Your task to perform on an android device: Go to calendar. Show me events next week Image 0: 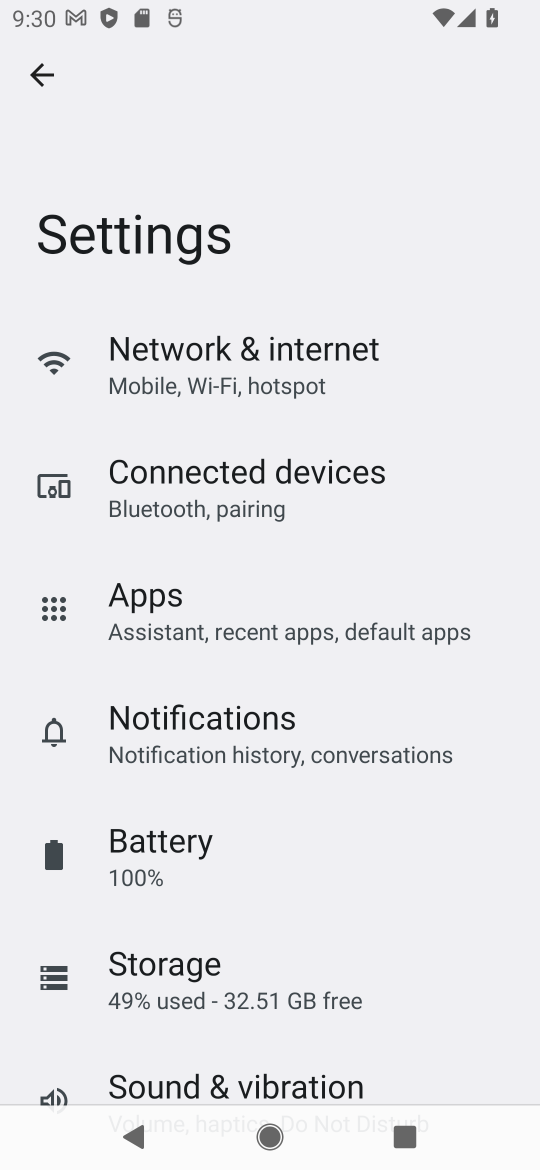
Step 0: press home button
Your task to perform on an android device: Go to calendar. Show me events next week Image 1: 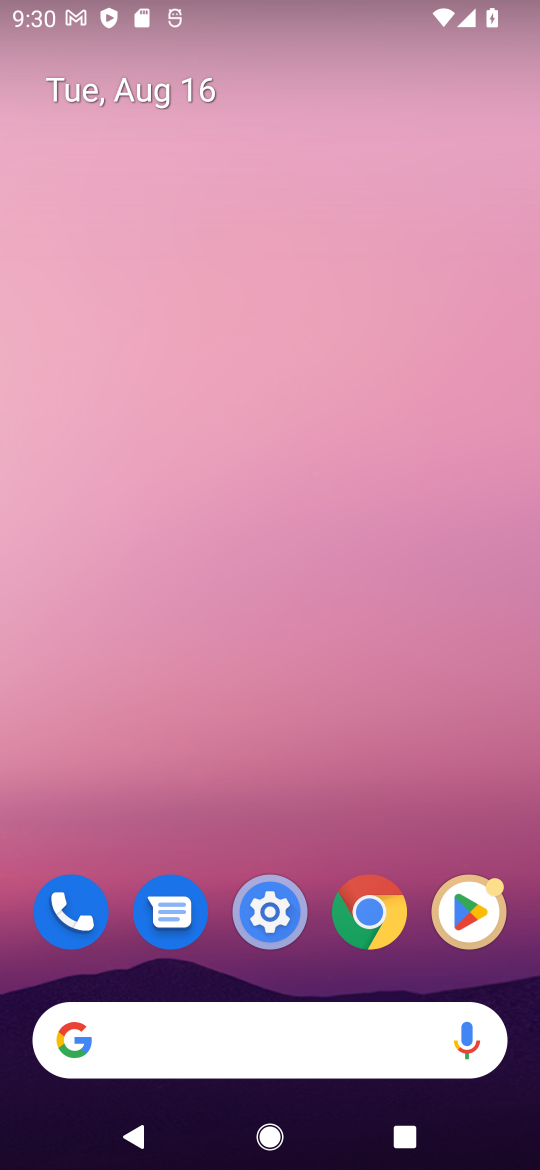
Step 1: click (144, 92)
Your task to perform on an android device: Go to calendar. Show me events next week Image 2: 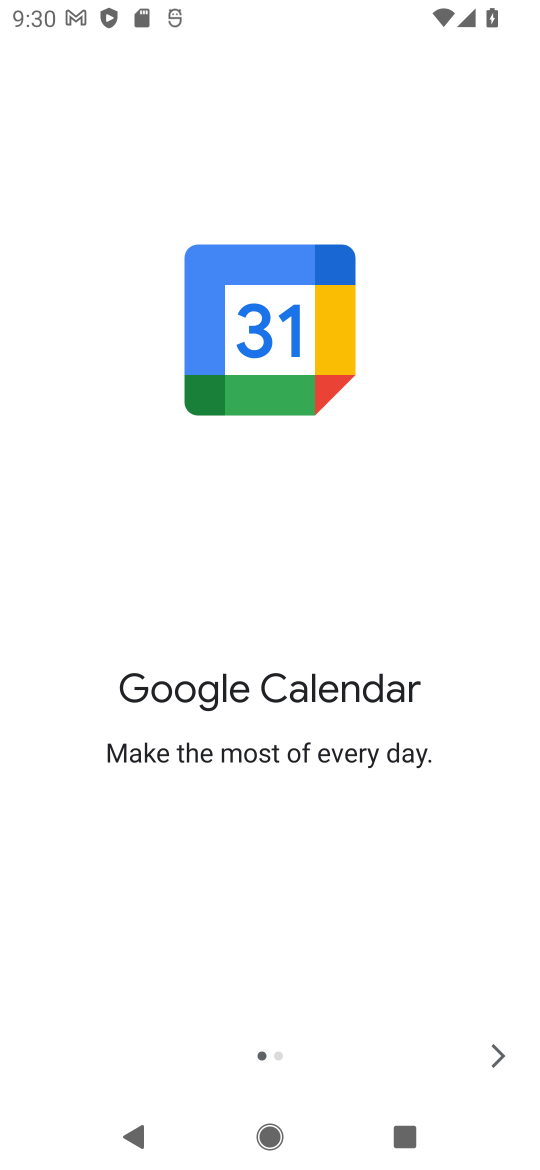
Step 2: click (504, 1053)
Your task to perform on an android device: Go to calendar. Show me events next week Image 3: 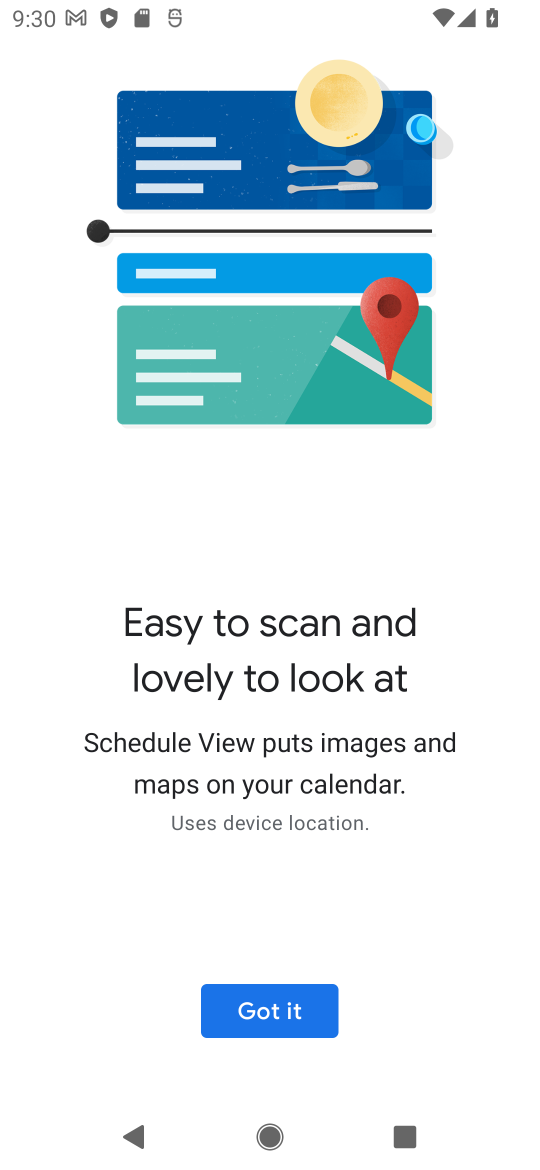
Step 3: click (275, 1014)
Your task to perform on an android device: Go to calendar. Show me events next week Image 4: 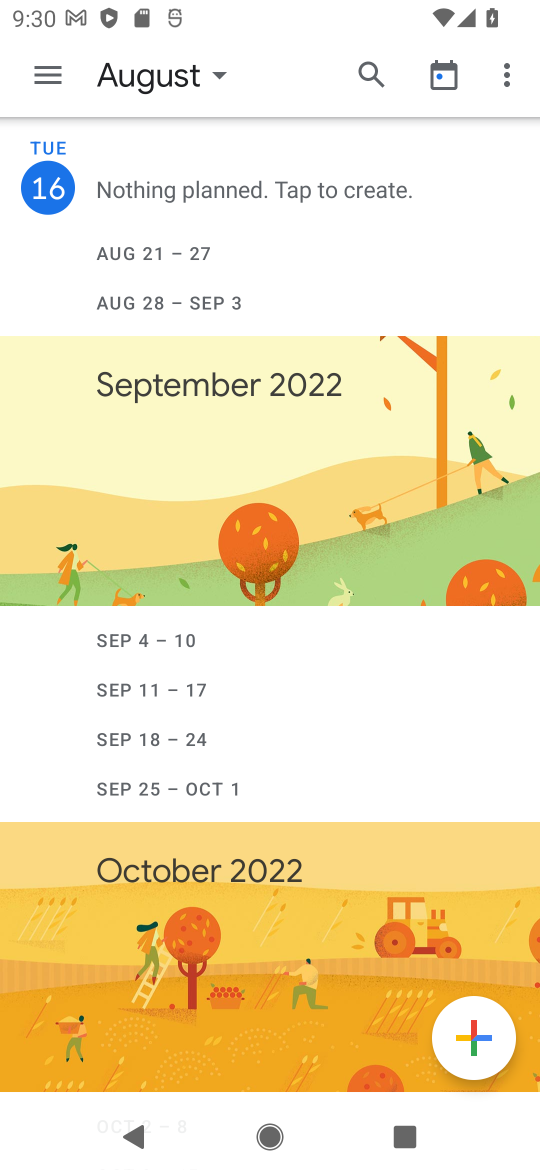
Step 4: click (141, 92)
Your task to perform on an android device: Go to calendar. Show me events next week Image 5: 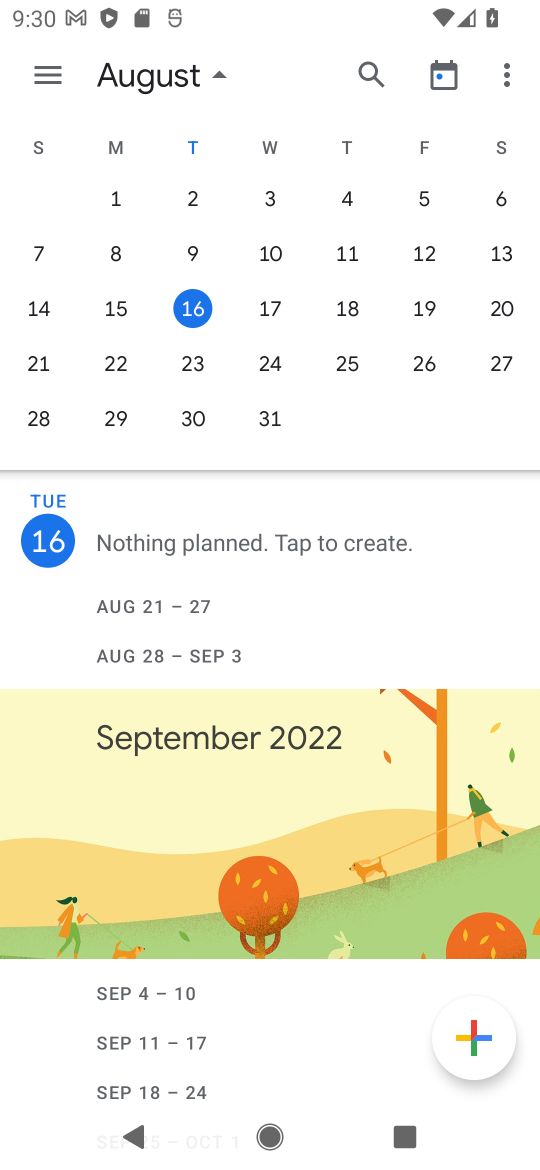
Step 5: click (196, 380)
Your task to perform on an android device: Go to calendar. Show me events next week Image 6: 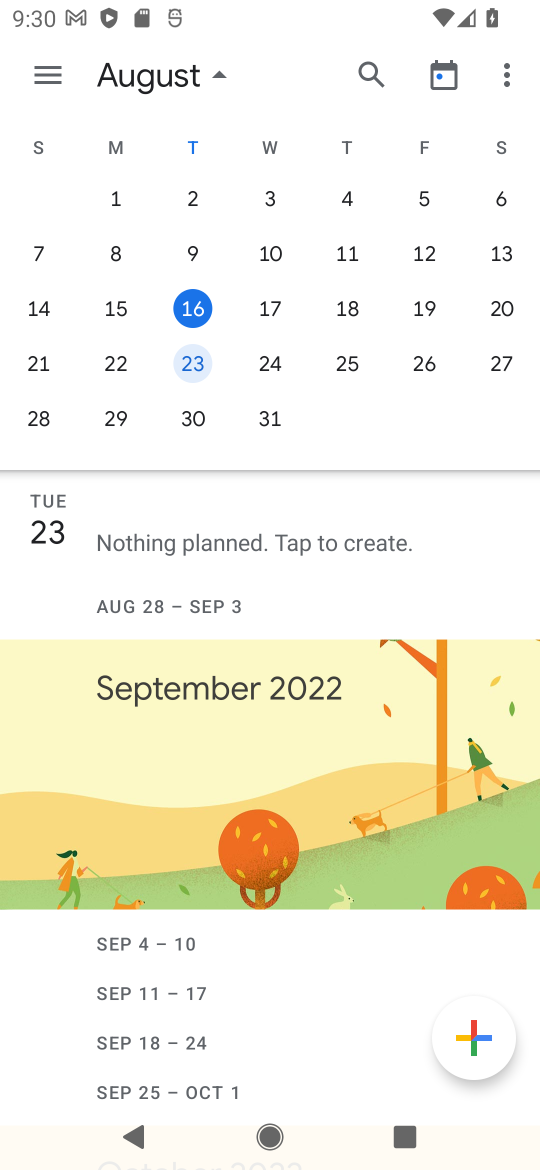
Step 6: click (45, 67)
Your task to perform on an android device: Go to calendar. Show me events next week Image 7: 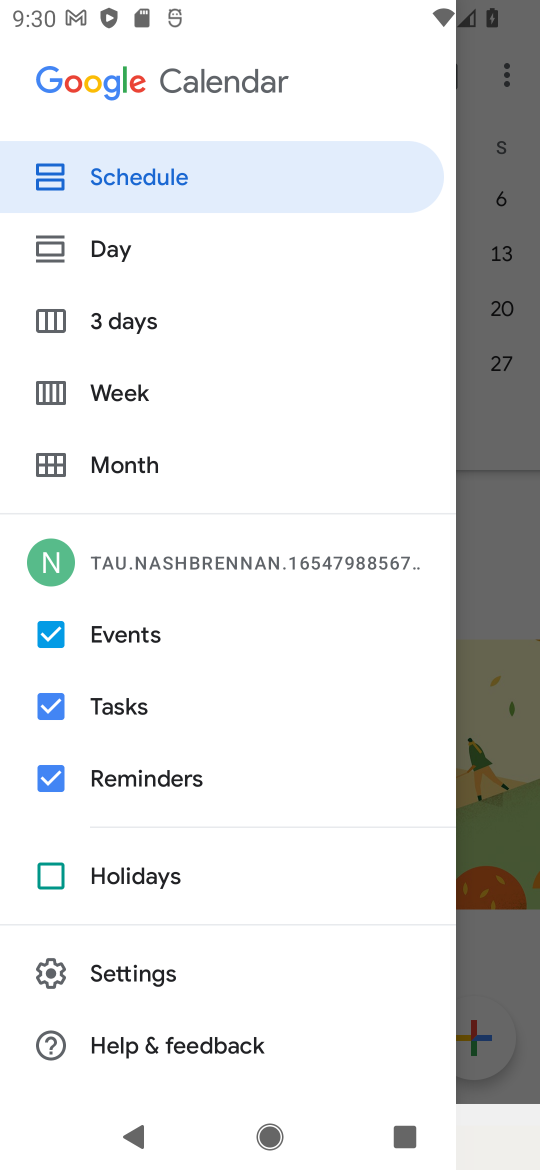
Step 7: click (39, 715)
Your task to perform on an android device: Go to calendar. Show me events next week Image 8: 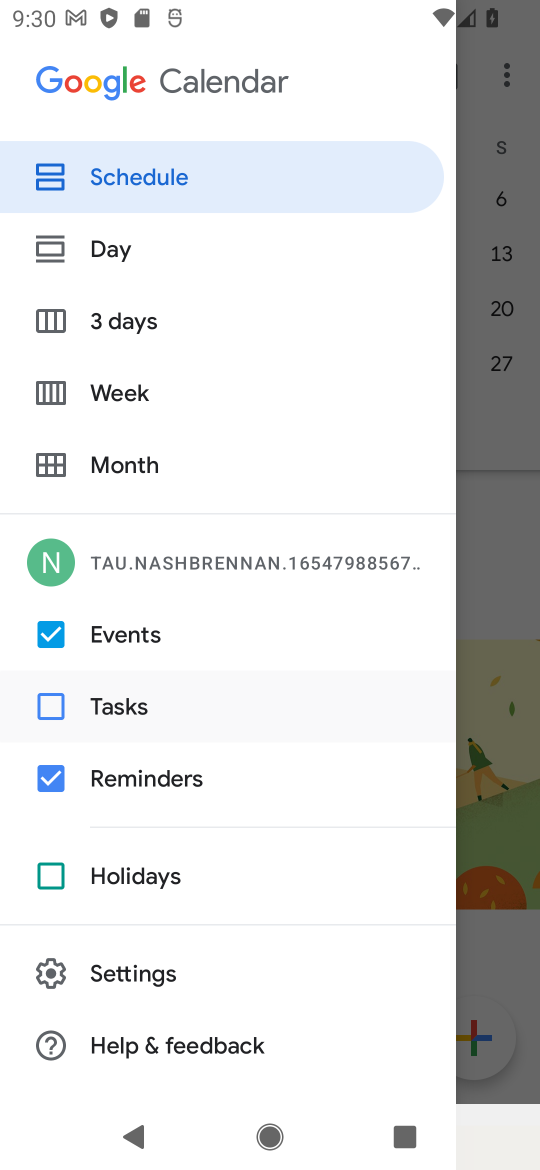
Step 8: click (47, 772)
Your task to perform on an android device: Go to calendar. Show me events next week Image 9: 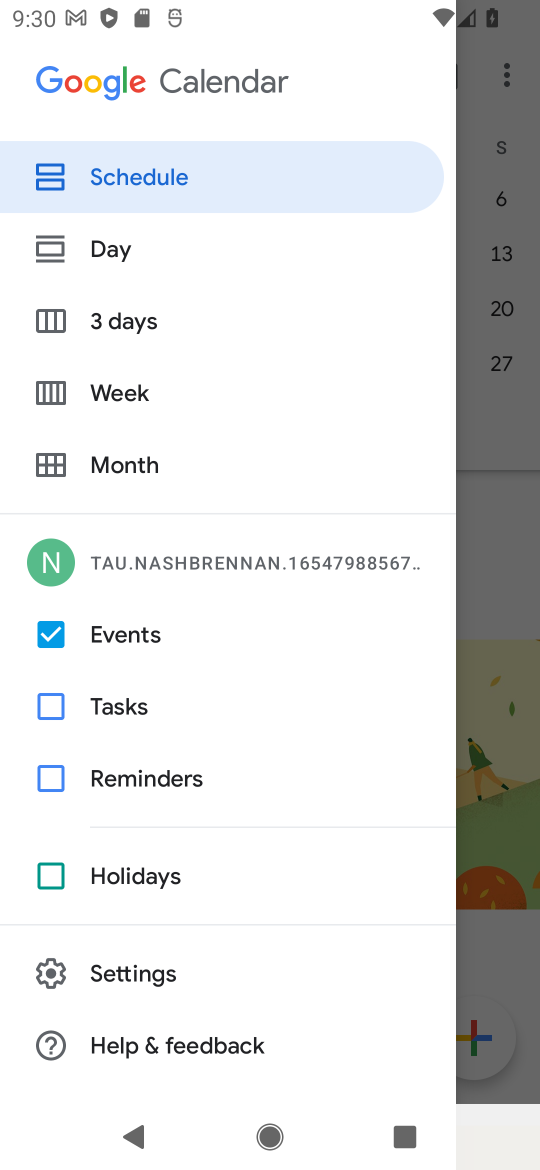
Step 9: click (160, 407)
Your task to perform on an android device: Go to calendar. Show me events next week Image 10: 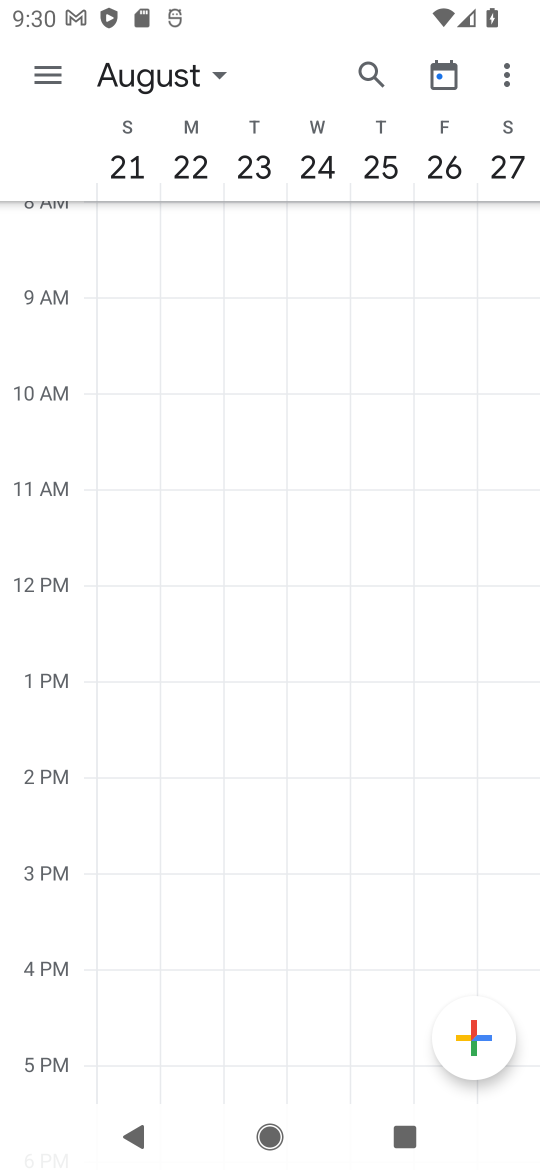
Step 10: task complete